Your task to perform on an android device: Open Yahoo.com Image 0: 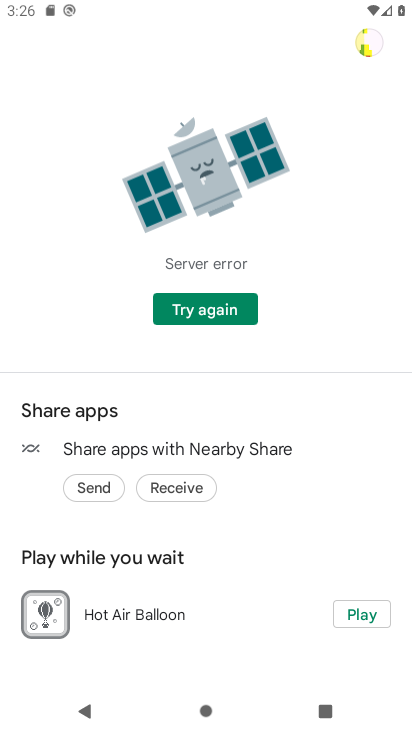
Step 0: press home button
Your task to perform on an android device: Open Yahoo.com Image 1: 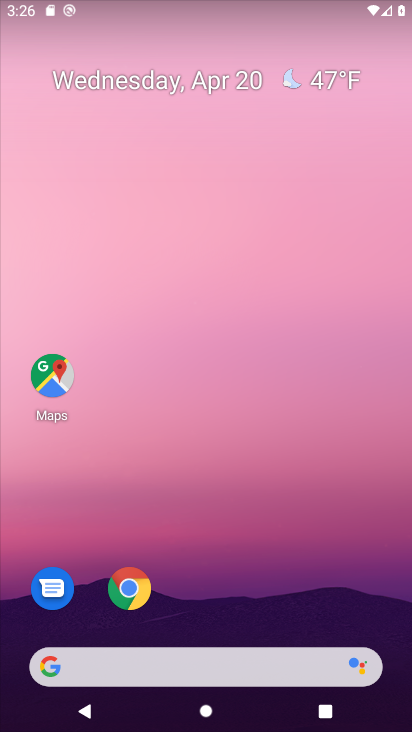
Step 1: click (126, 578)
Your task to perform on an android device: Open Yahoo.com Image 2: 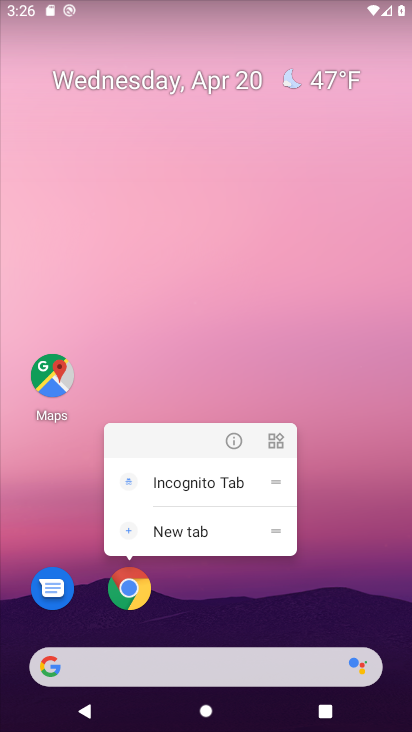
Step 2: click (126, 578)
Your task to perform on an android device: Open Yahoo.com Image 3: 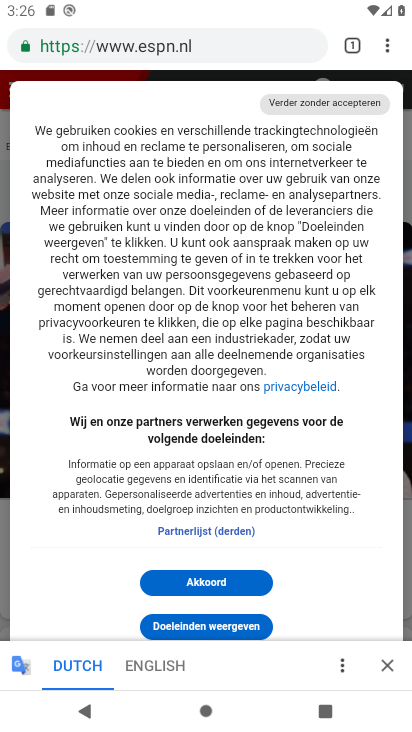
Step 3: click (126, 578)
Your task to perform on an android device: Open Yahoo.com Image 4: 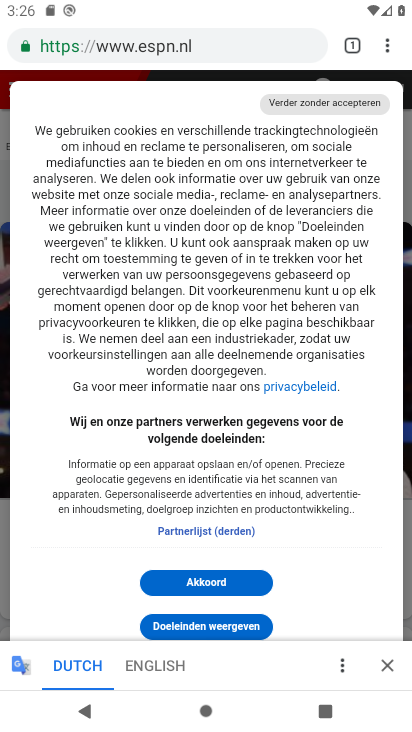
Step 4: click (155, 48)
Your task to perform on an android device: Open Yahoo.com Image 5: 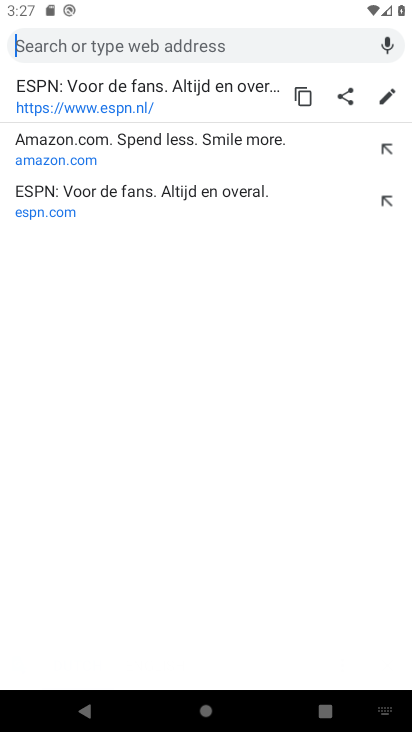
Step 5: type "yahoo.com"
Your task to perform on an android device: Open Yahoo.com Image 6: 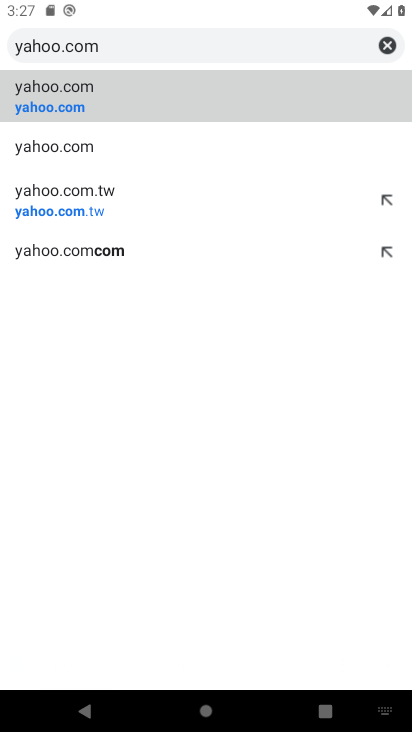
Step 6: click (18, 109)
Your task to perform on an android device: Open Yahoo.com Image 7: 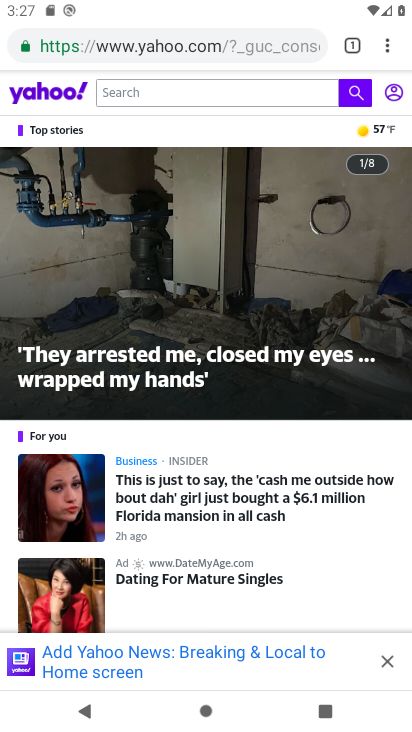
Step 7: task complete